Your task to perform on an android device: install app "Google Keep" Image 0: 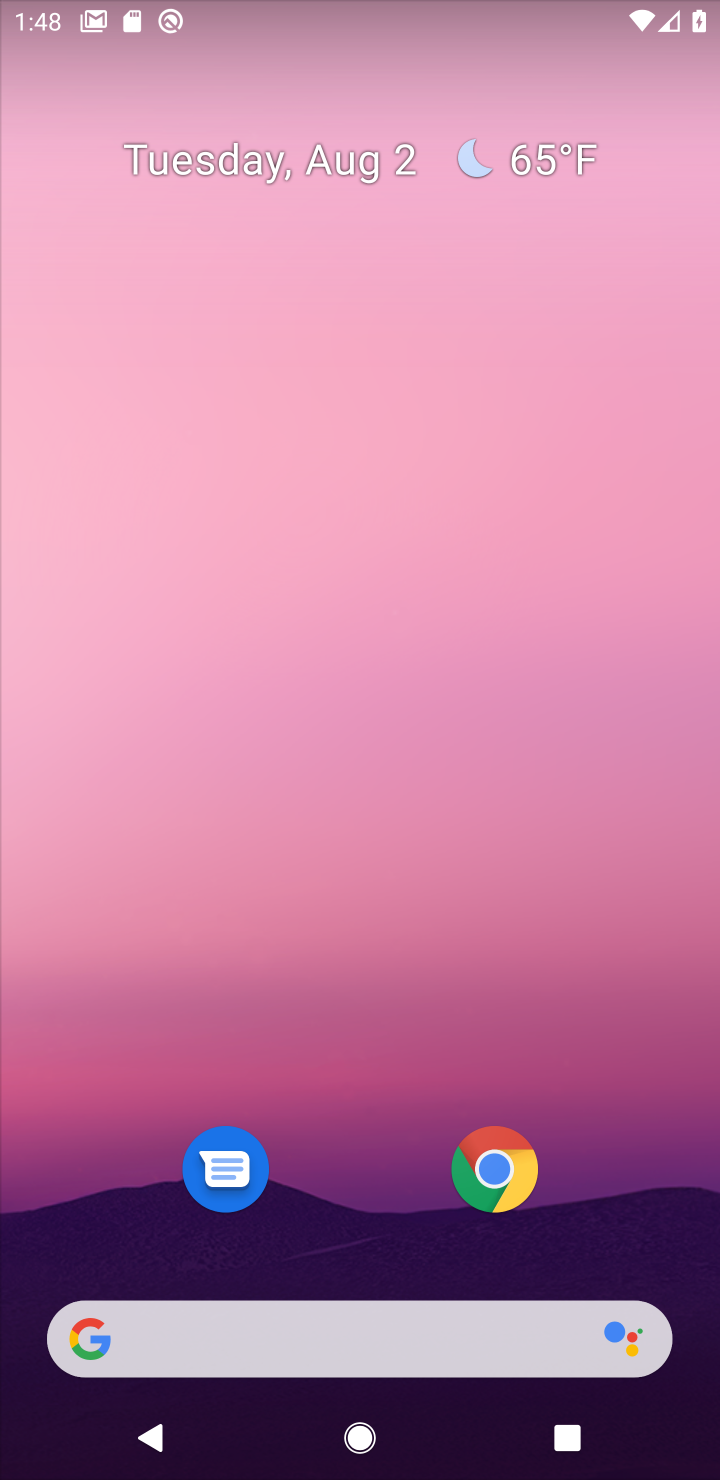
Step 0: press home button
Your task to perform on an android device: install app "Google Keep" Image 1: 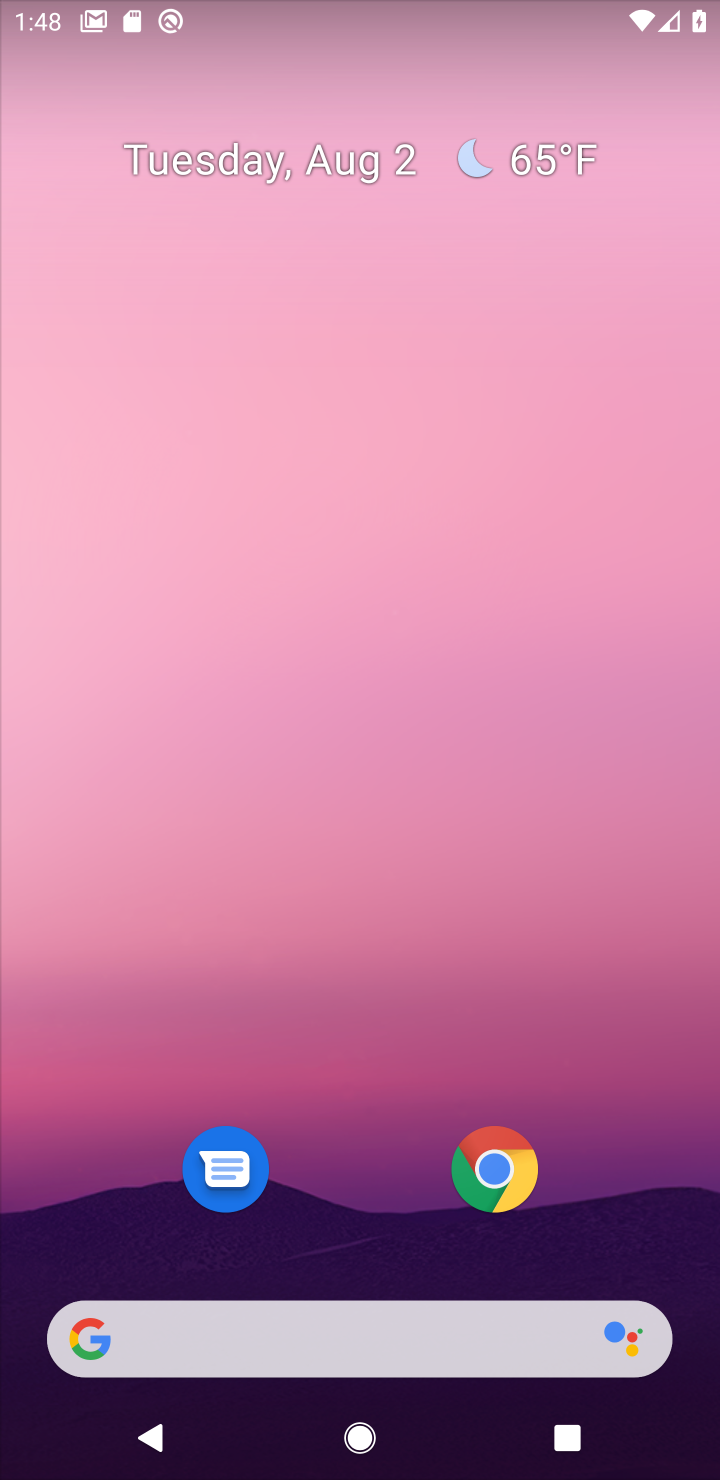
Step 1: click (590, 82)
Your task to perform on an android device: install app "Google Keep" Image 2: 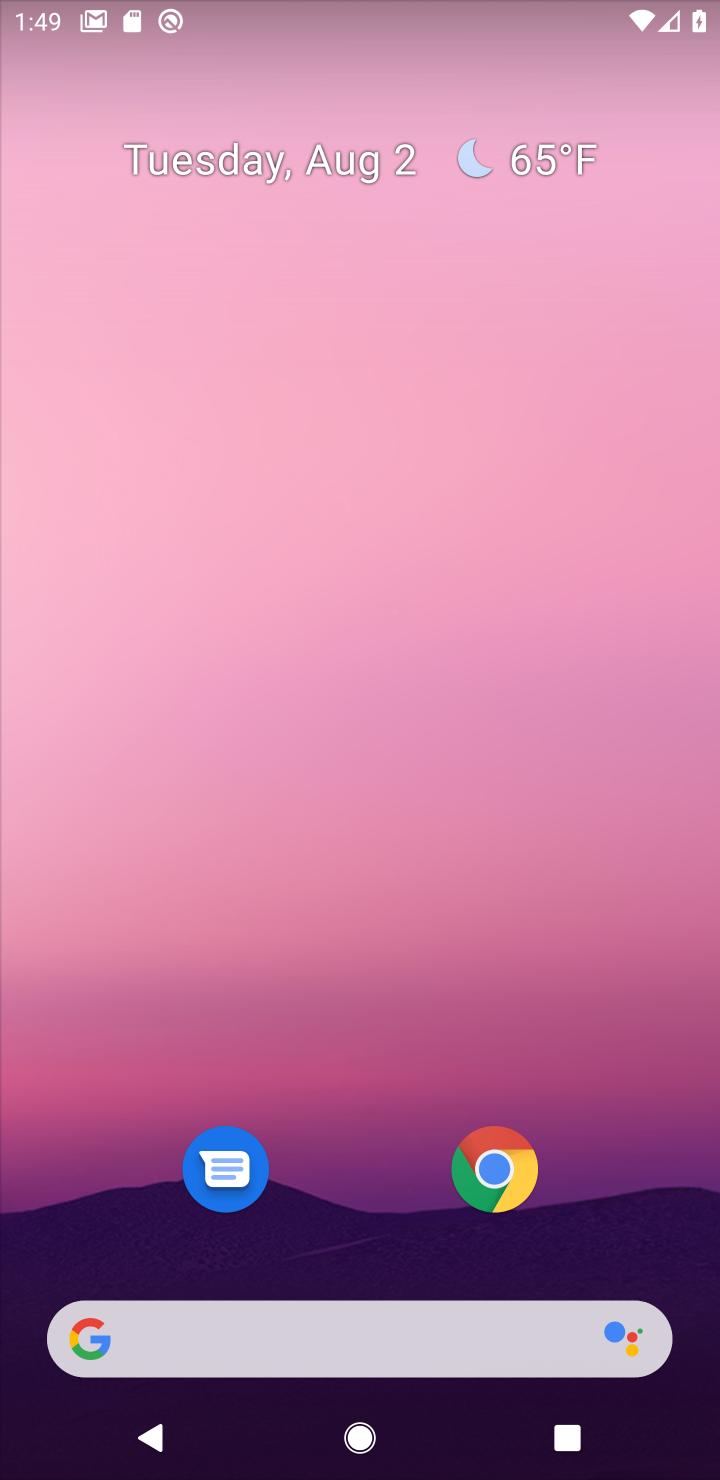
Step 2: drag from (359, 1217) to (499, 246)
Your task to perform on an android device: install app "Google Keep" Image 3: 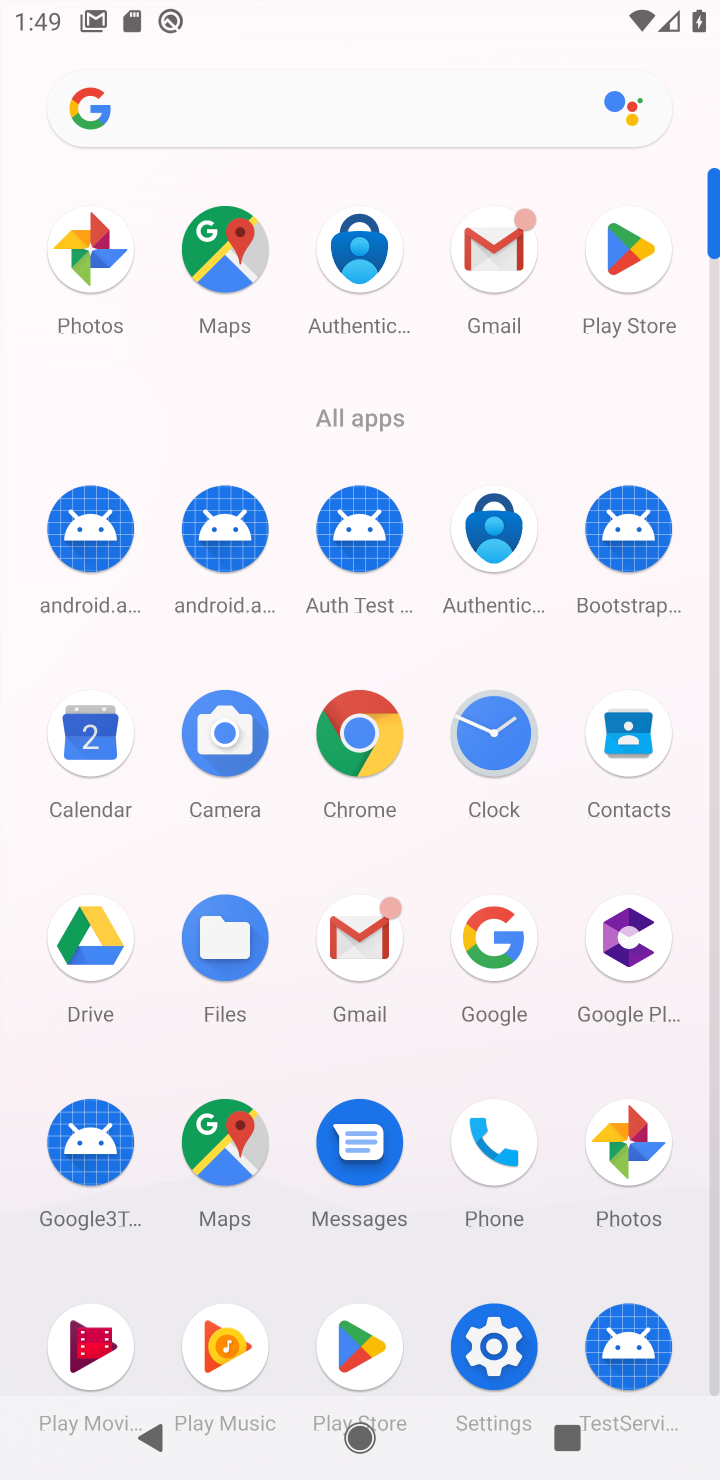
Step 3: click (649, 236)
Your task to perform on an android device: install app "Google Keep" Image 4: 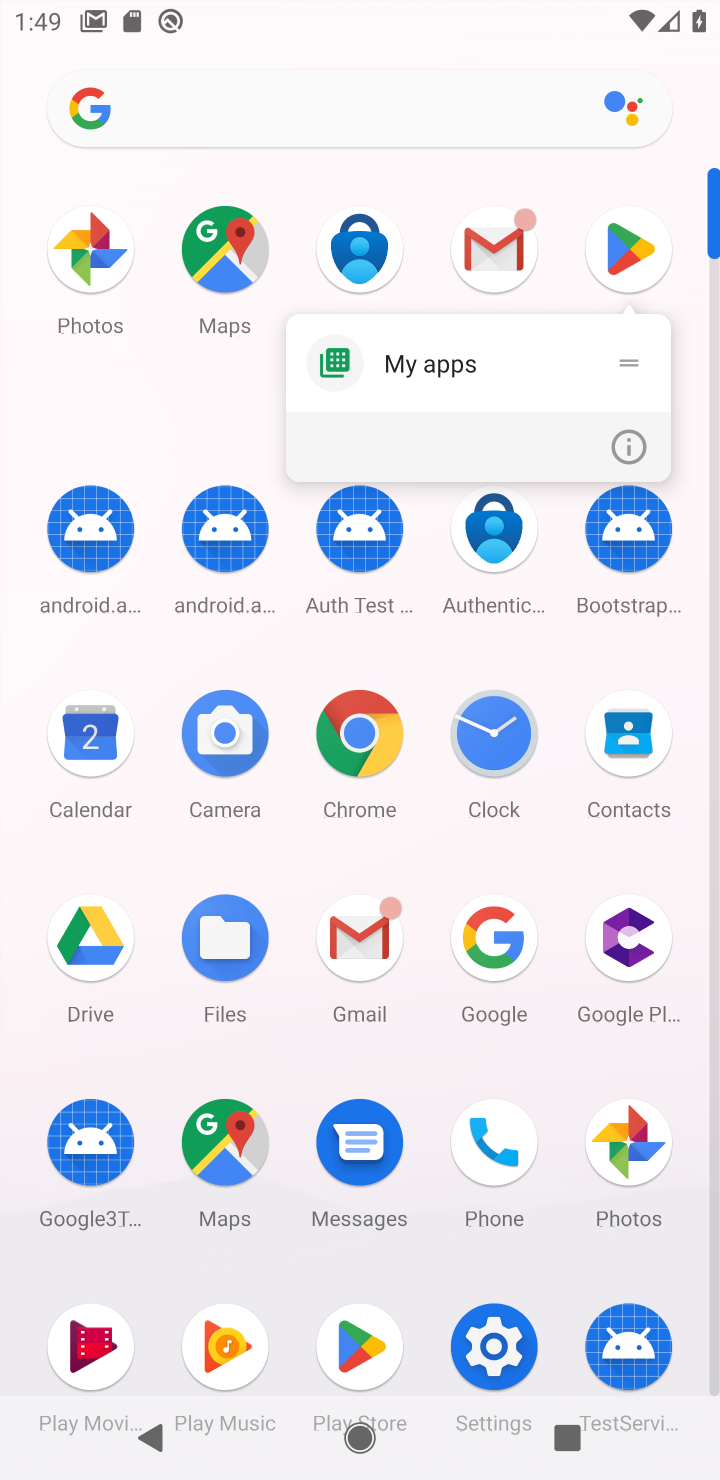
Step 4: click (631, 231)
Your task to perform on an android device: install app "Google Keep" Image 5: 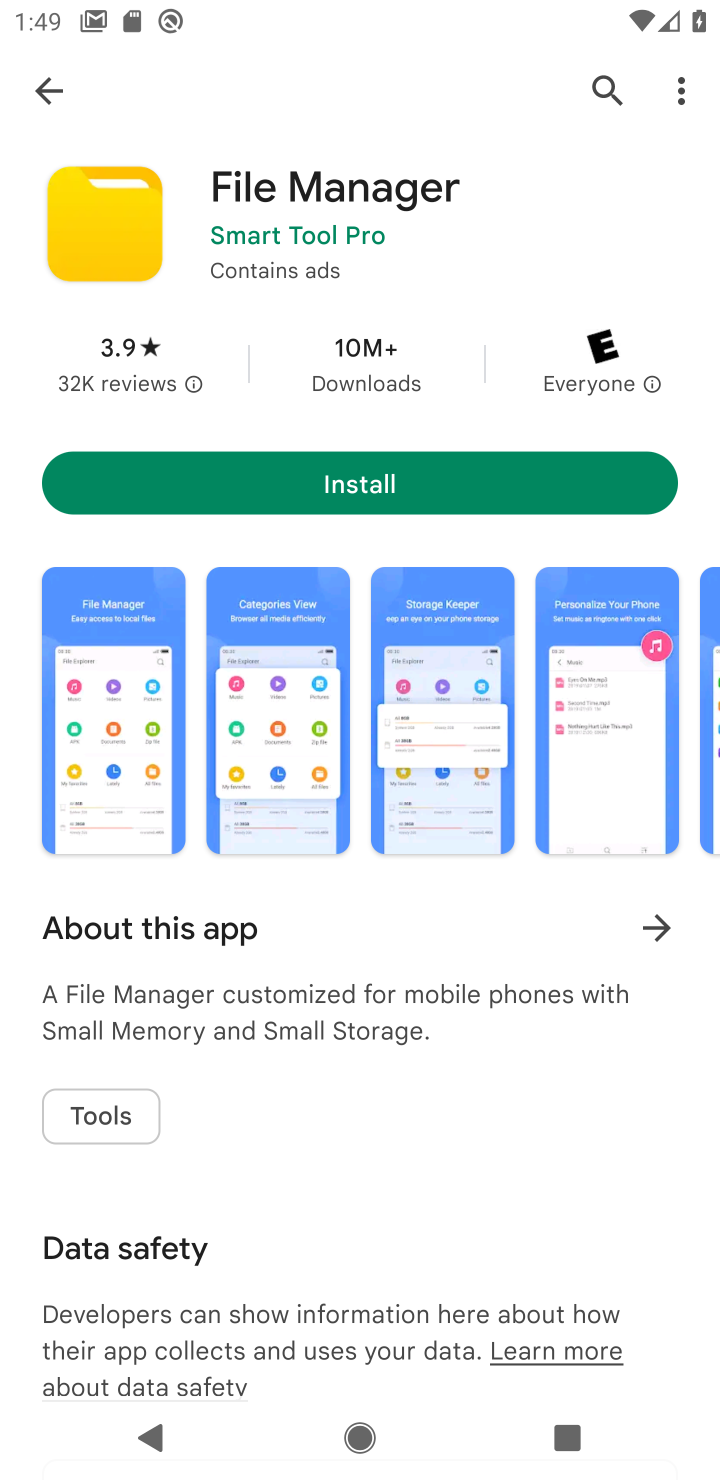
Step 5: click (619, 71)
Your task to perform on an android device: install app "Google Keep" Image 6: 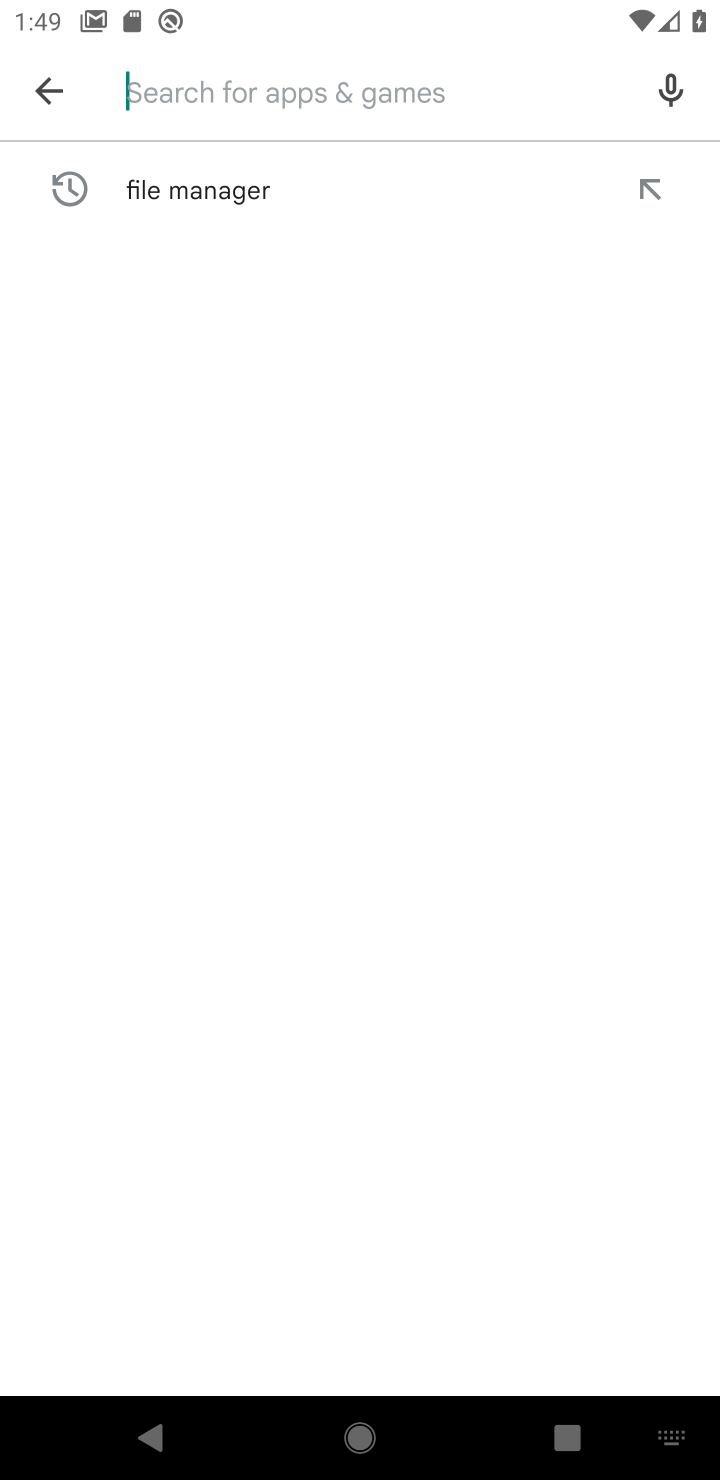
Step 6: type "Google Keep"
Your task to perform on an android device: install app "Google Keep" Image 7: 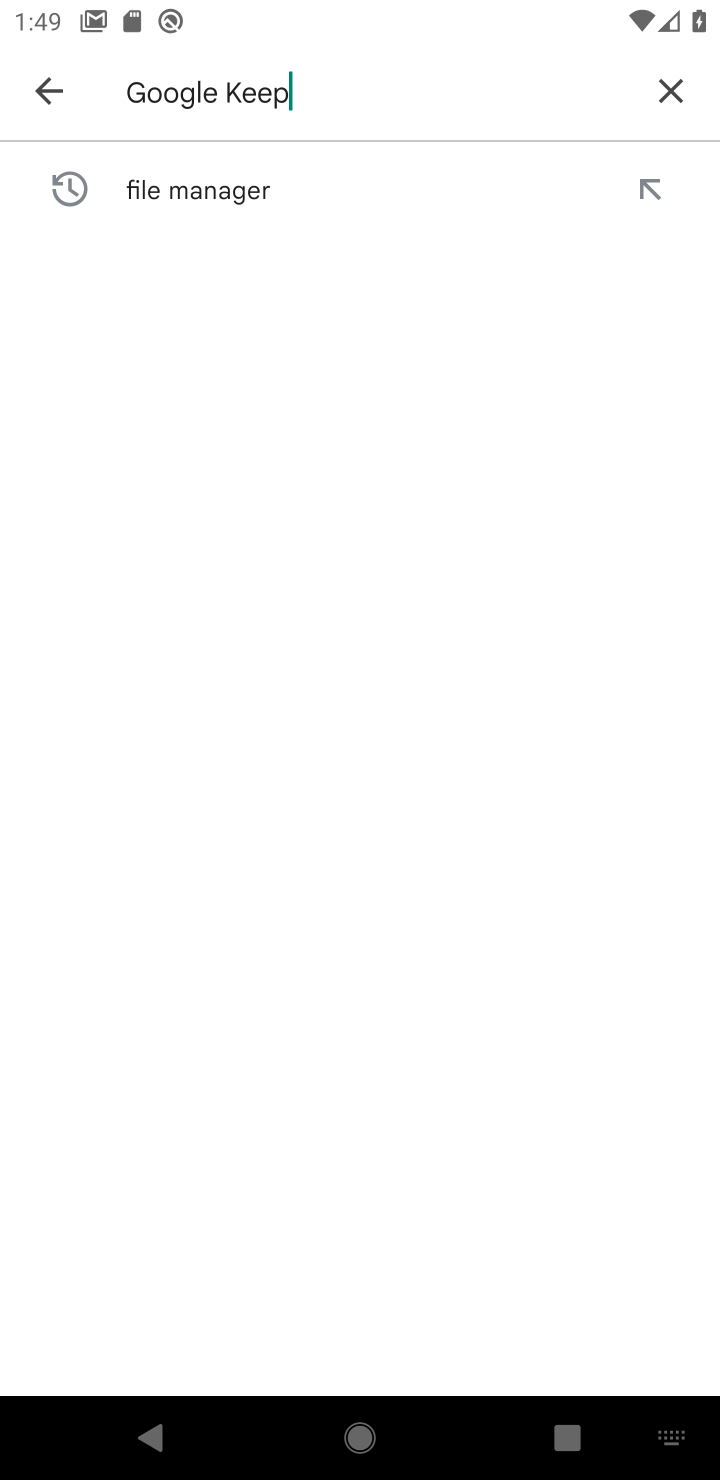
Step 7: type ""
Your task to perform on an android device: install app "Google Keep" Image 8: 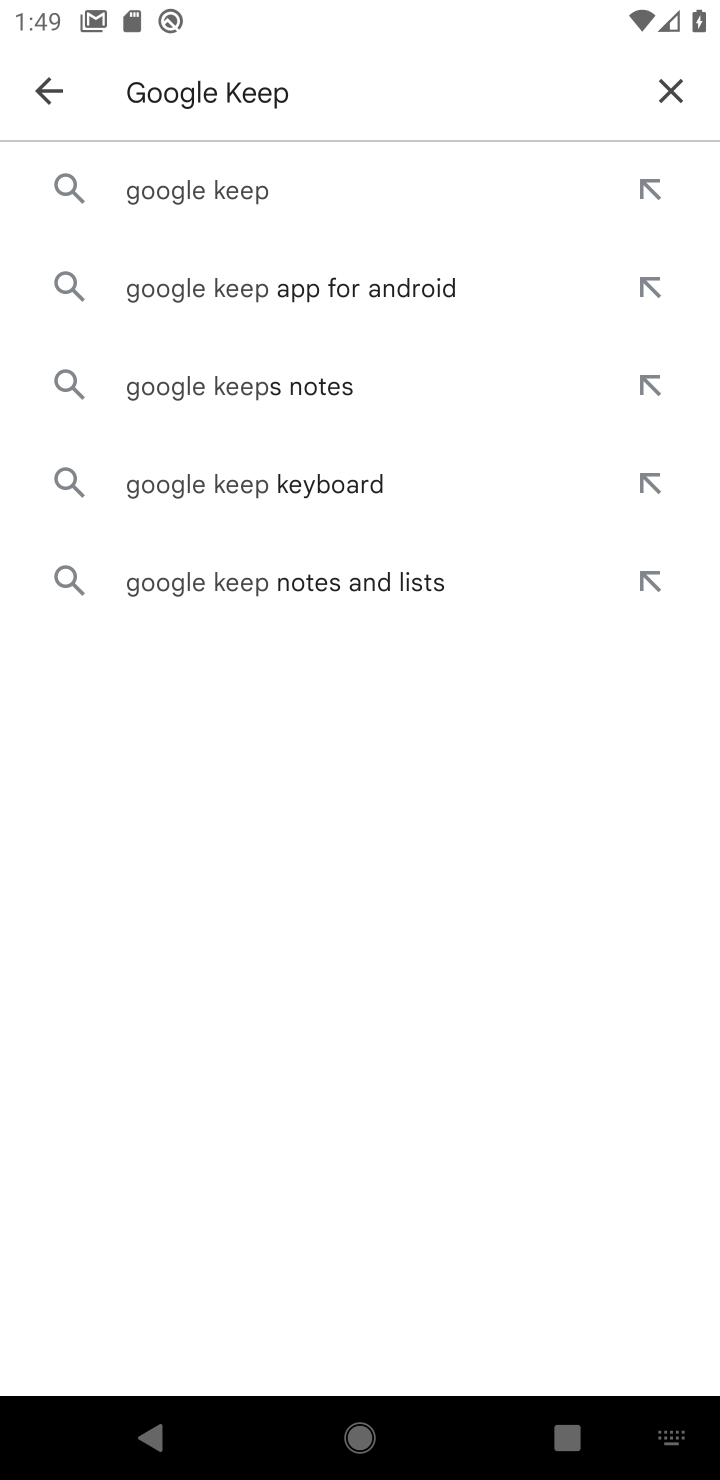
Step 8: click (334, 180)
Your task to perform on an android device: install app "Google Keep" Image 9: 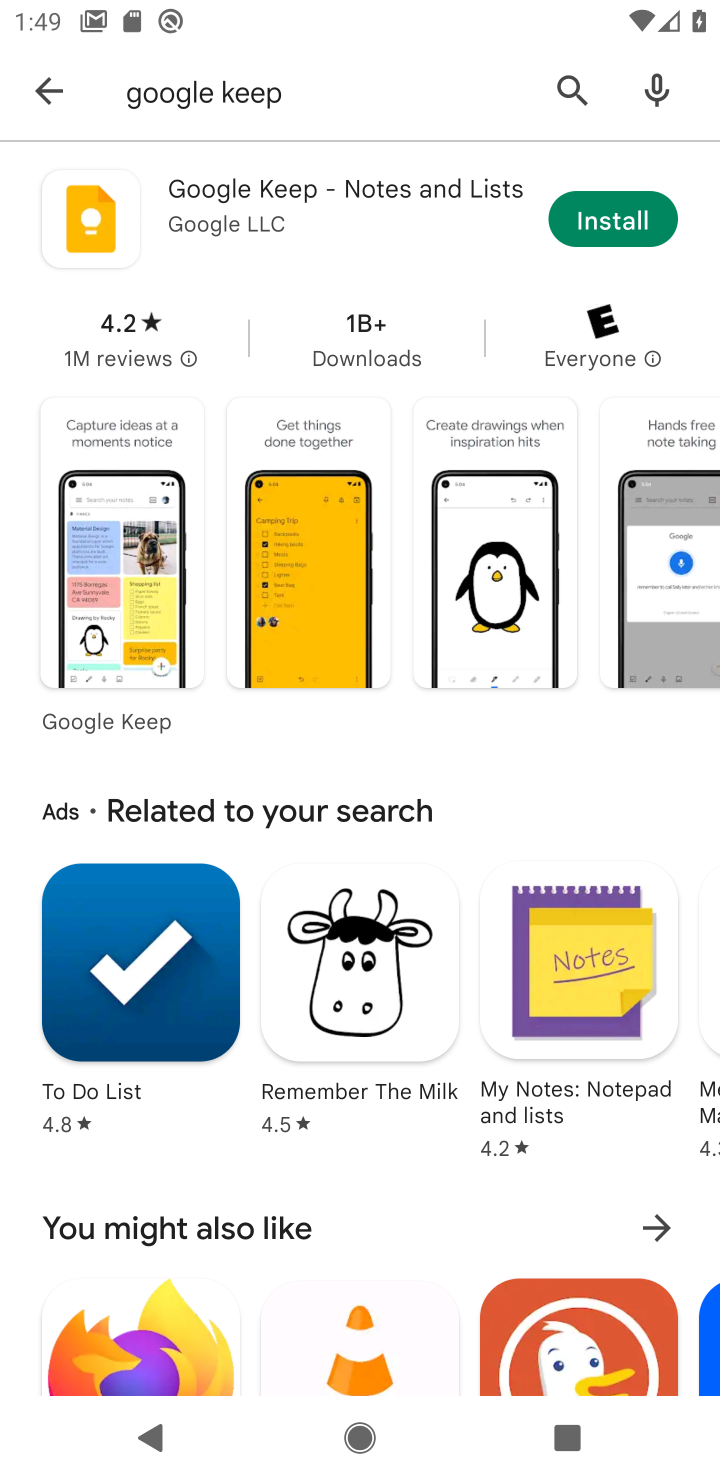
Step 9: click (602, 215)
Your task to perform on an android device: install app "Google Keep" Image 10: 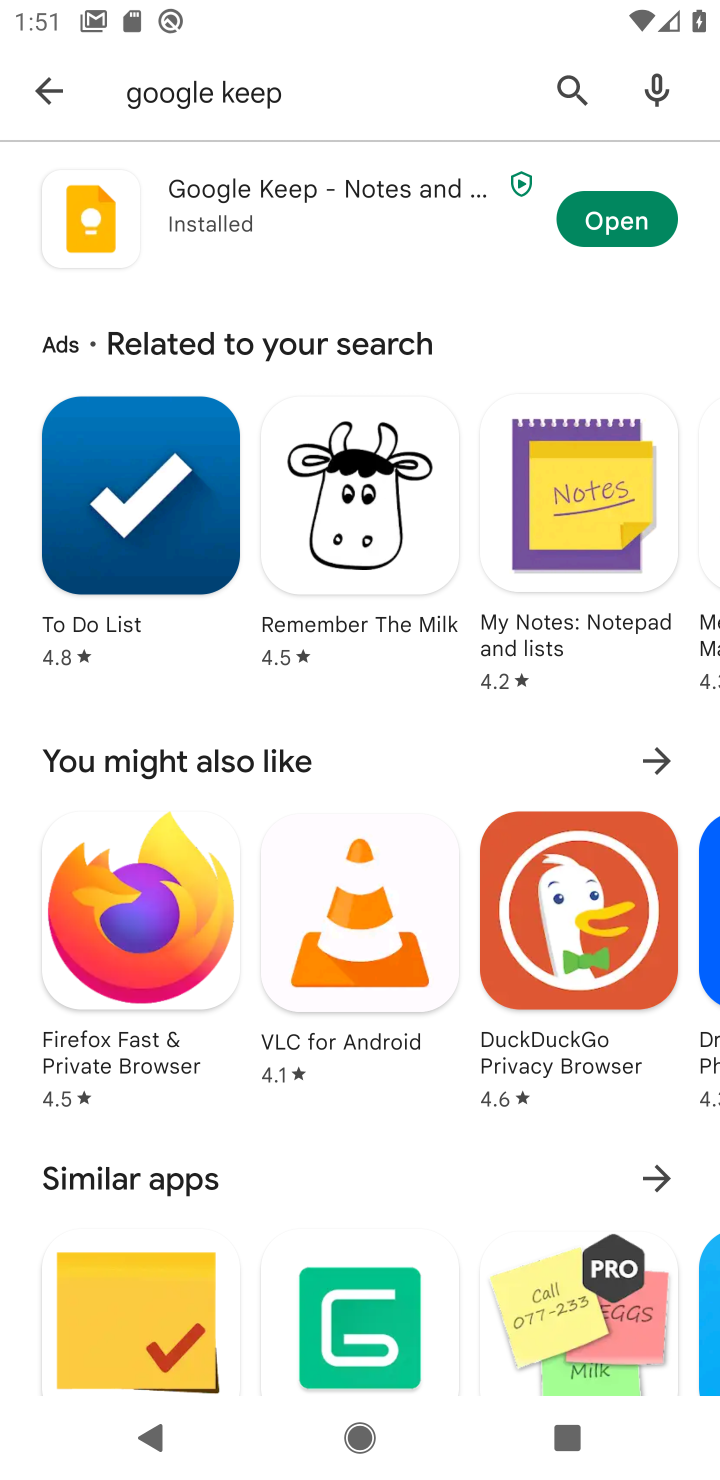
Step 10: click (634, 226)
Your task to perform on an android device: install app "Google Keep" Image 11: 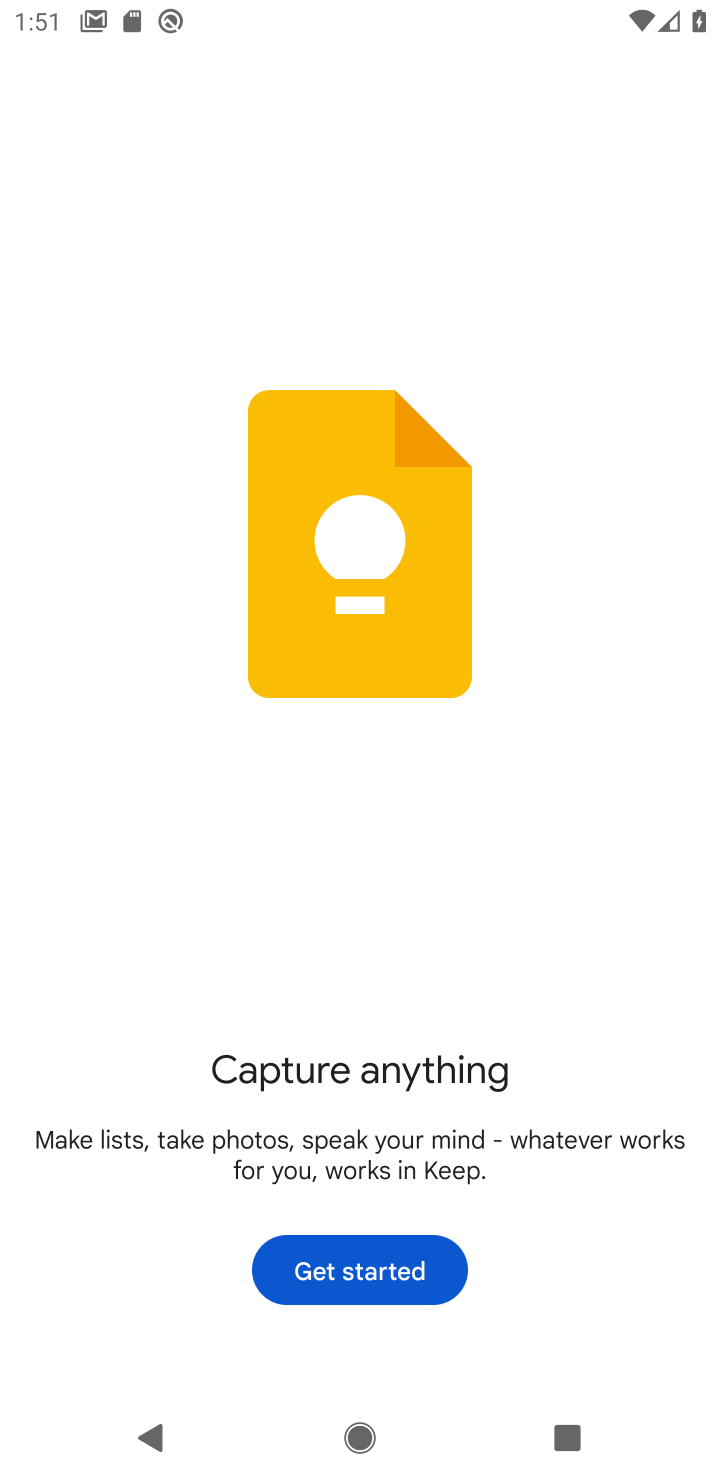
Step 11: click (359, 1269)
Your task to perform on an android device: install app "Google Keep" Image 12: 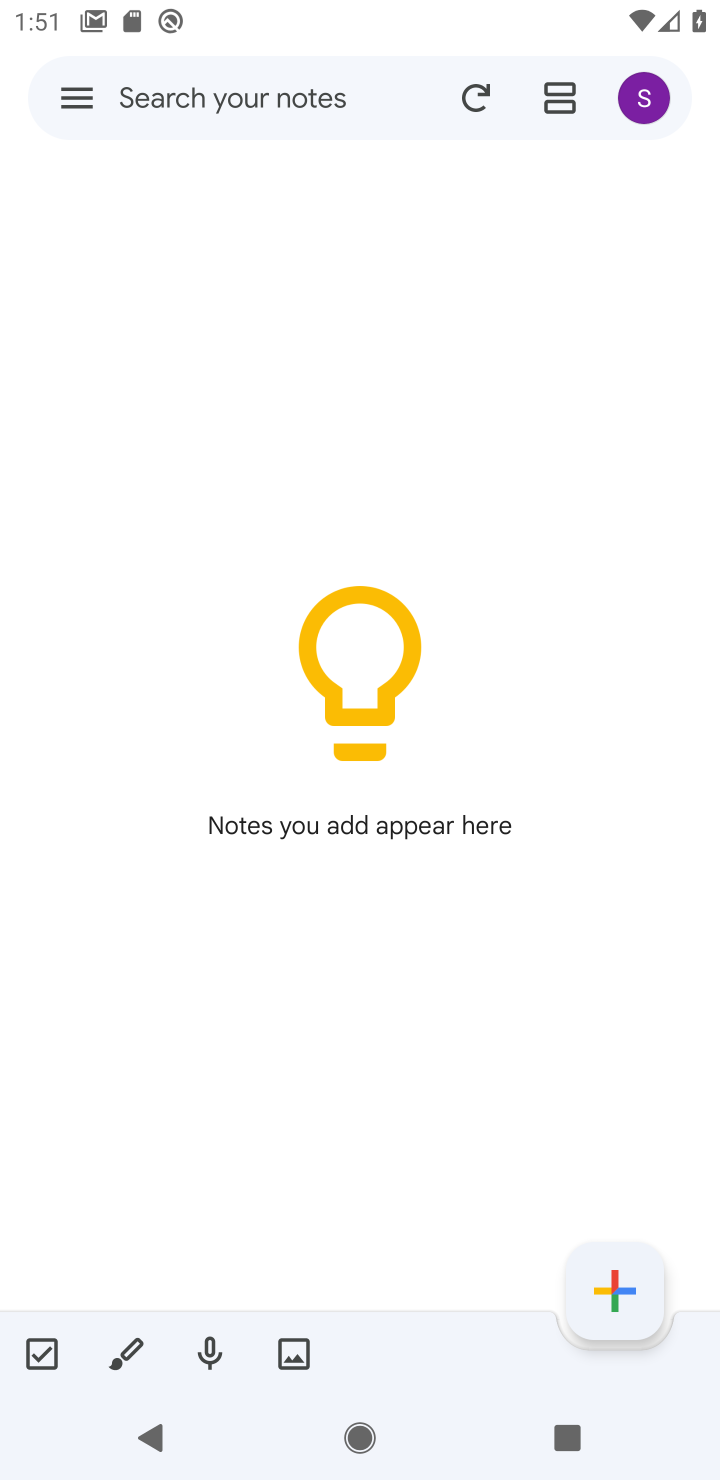
Step 12: task complete